Your task to perform on an android device: Search for vegetarian restaurants on Maps Image 0: 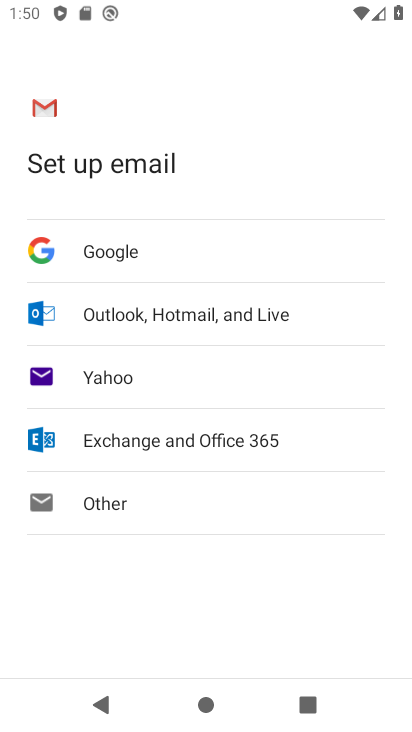
Step 0: press home button
Your task to perform on an android device: Search for vegetarian restaurants on Maps Image 1: 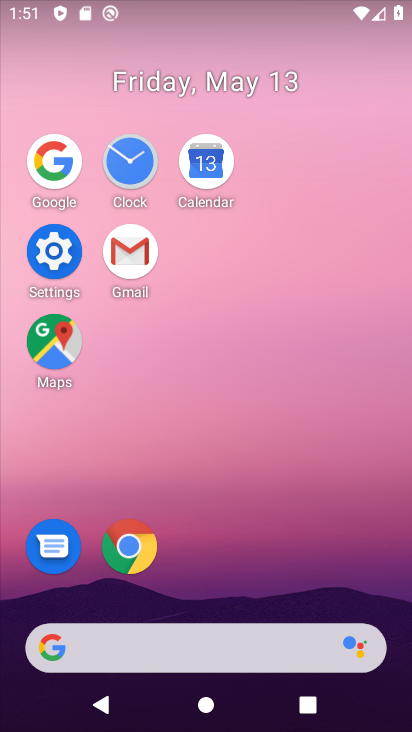
Step 1: click (63, 337)
Your task to perform on an android device: Search for vegetarian restaurants on Maps Image 2: 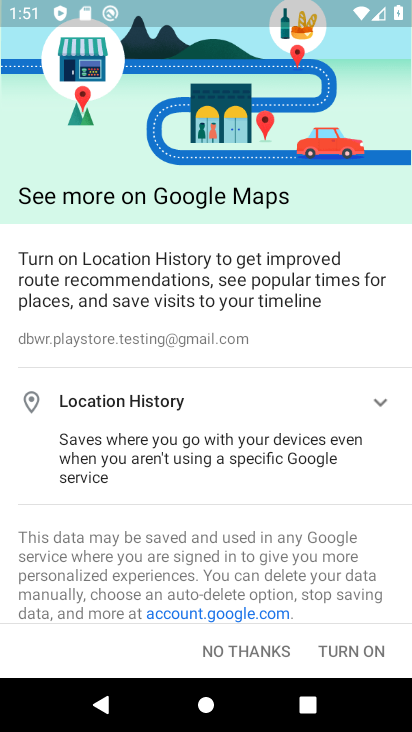
Step 2: click (353, 646)
Your task to perform on an android device: Search for vegetarian restaurants on Maps Image 3: 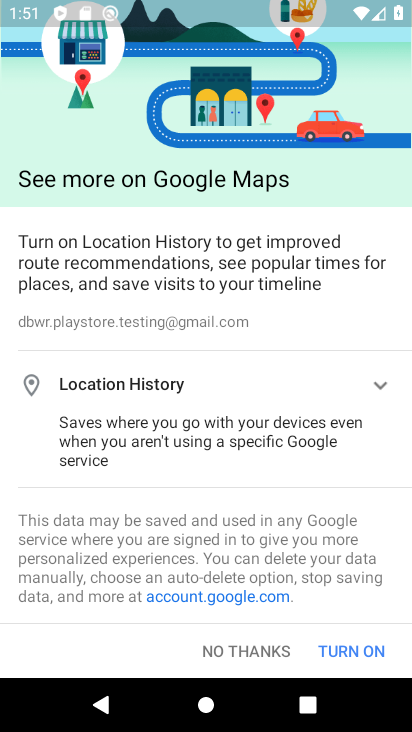
Step 3: click (364, 650)
Your task to perform on an android device: Search for vegetarian restaurants on Maps Image 4: 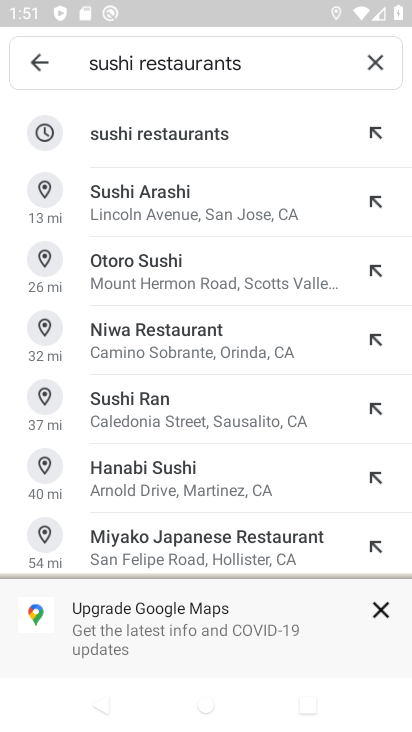
Step 4: click (385, 64)
Your task to perform on an android device: Search for vegetarian restaurants on Maps Image 5: 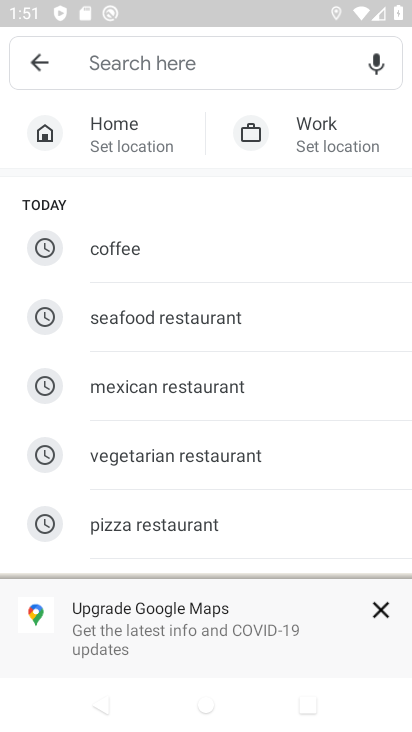
Step 5: click (213, 444)
Your task to perform on an android device: Search for vegetarian restaurants on Maps Image 6: 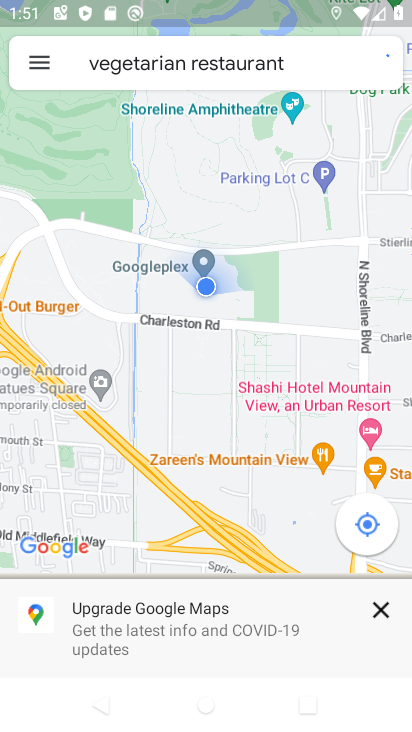
Step 6: task complete